Your task to perform on an android device: change the upload size in google photos Image 0: 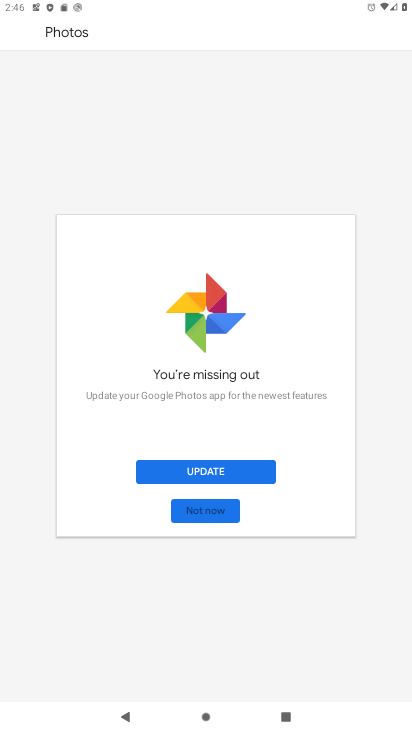
Step 0: press home button
Your task to perform on an android device: change the upload size in google photos Image 1: 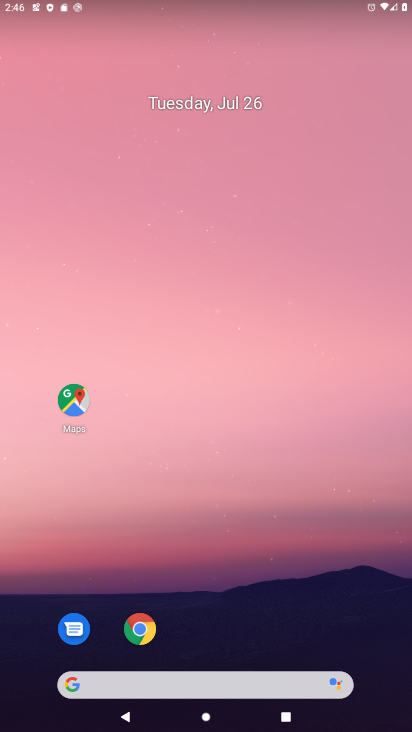
Step 1: drag from (218, 627) to (218, 137)
Your task to perform on an android device: change the upload size in google photos Image 2: 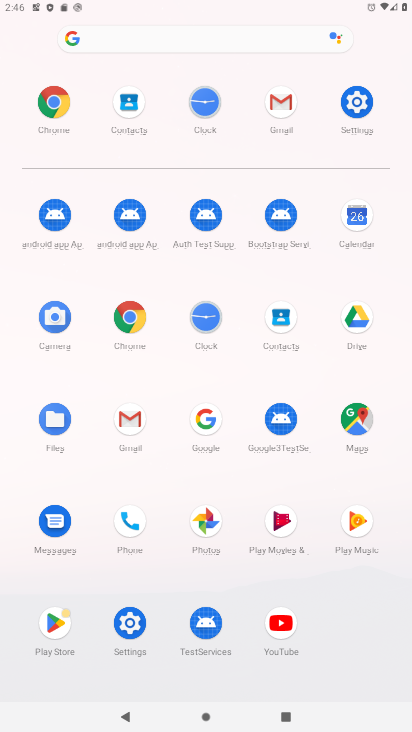
Step 2: click (188, 536)
Your task to perform on an android device: change the upload size in google photos Image 3: 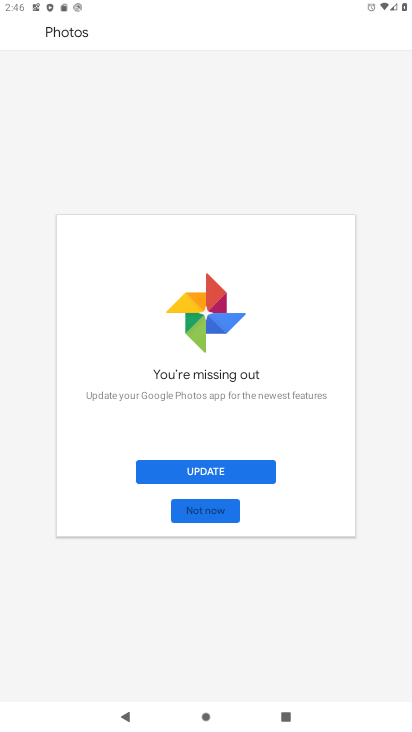
Step 3: click (227, 505)
Your task to perform on an android device: change the upload size in google photos Image 4: 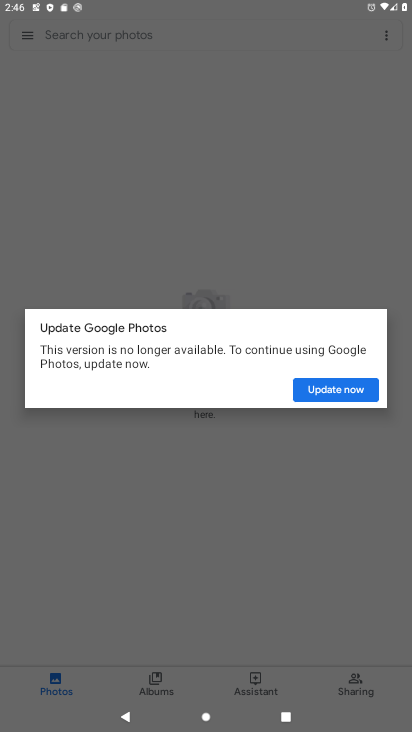
Step 4: click (266, 453)
Your task to perform on an android device: change the upload size in google photos Image 5: 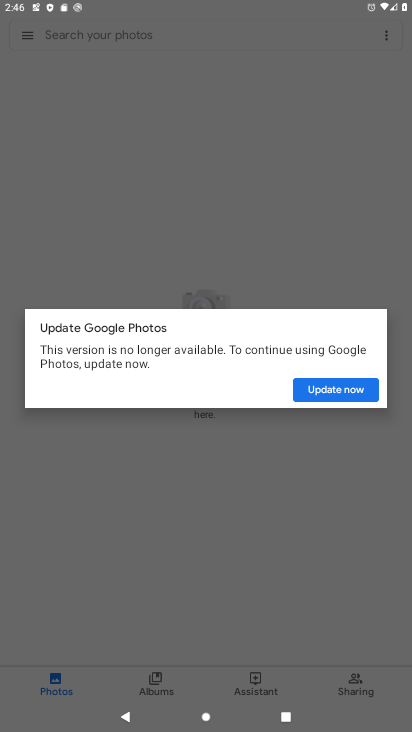
Step 5: click (309, 390)
Your task to perform on an android device: change the upload size in google photos Image 6: 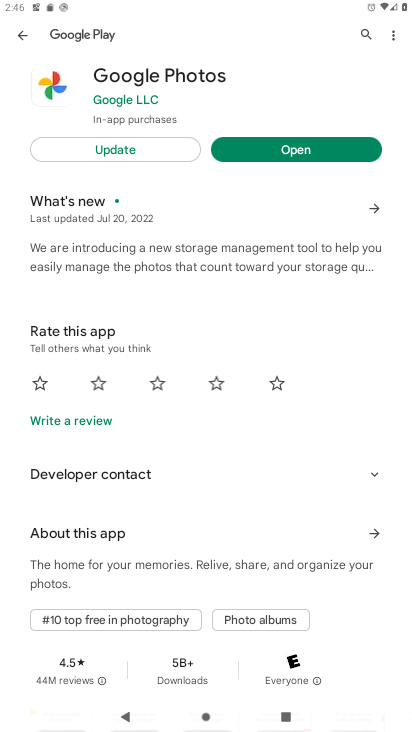
Step 6: click (250, 155)
Your task to perform on an android device: change the upload size in google photos Image 7: 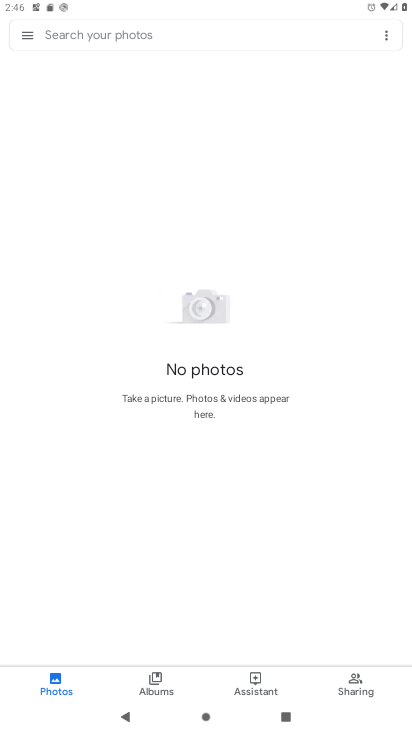
Step 7: click (33, 23)
Your task to perform on an android device: change the upload size in google photos Image 8: 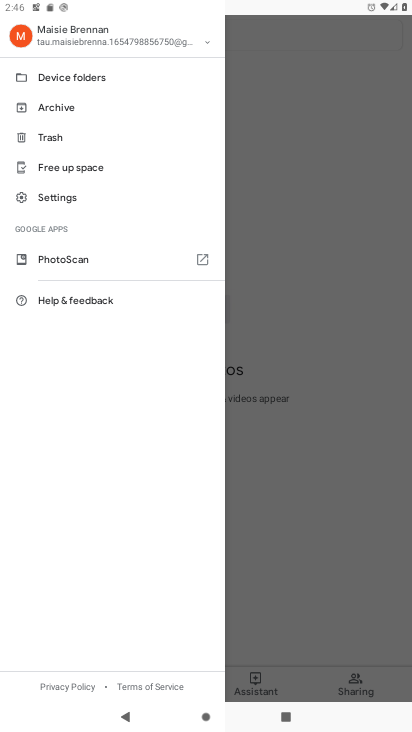
Step 8: click (54, 203)
Your task to perform on an android device: change the upload size in google photos Image 9: 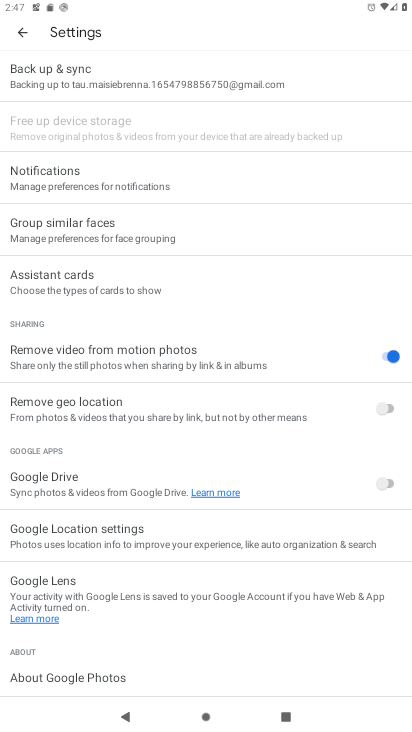
Step 9: click (118, 89)
Your task to perform on an android device: change the upload size in google photos Image 10: 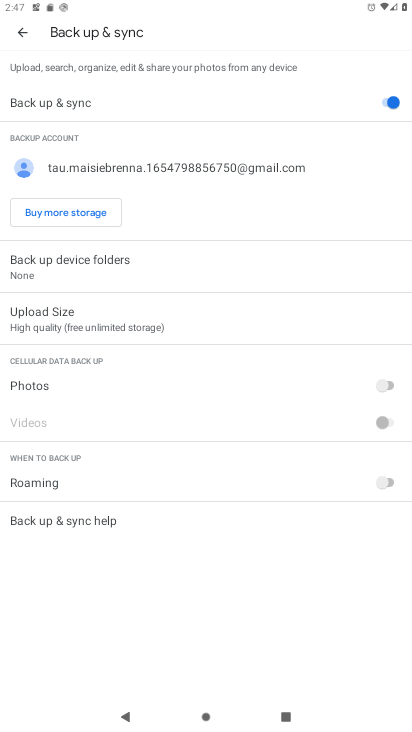
Step 10: click (83, 325)
Your task to perform on an android device: change the upload size in google photos Image 11: 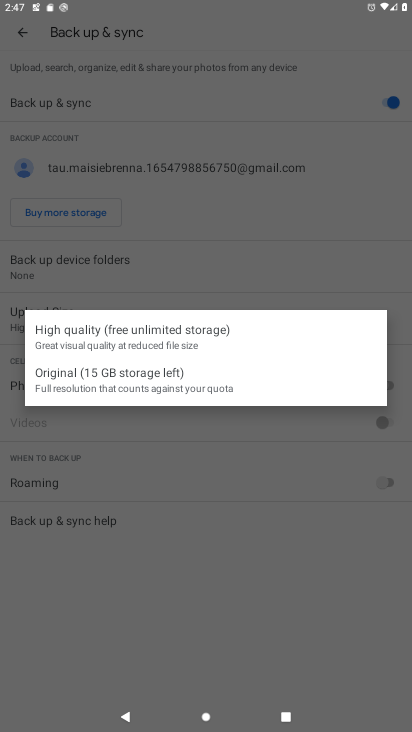
Step 11: click (83, 363)
Your task to perform on an android device: change the upload size in google photos Image 12: 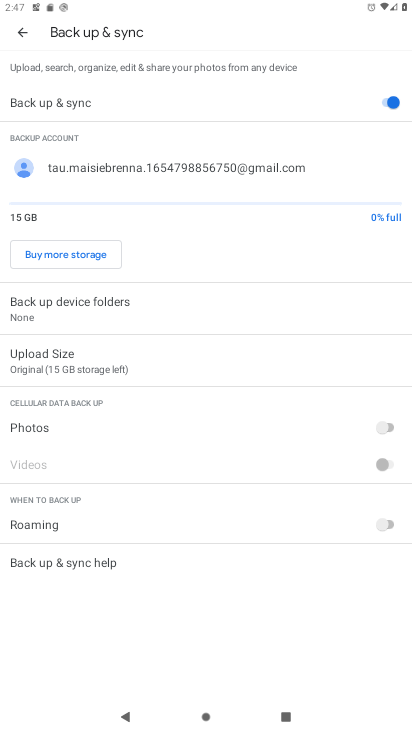
Step 12: task complete